Your task to perform on an android device: manage bookmarks in the chrome app Image 0: 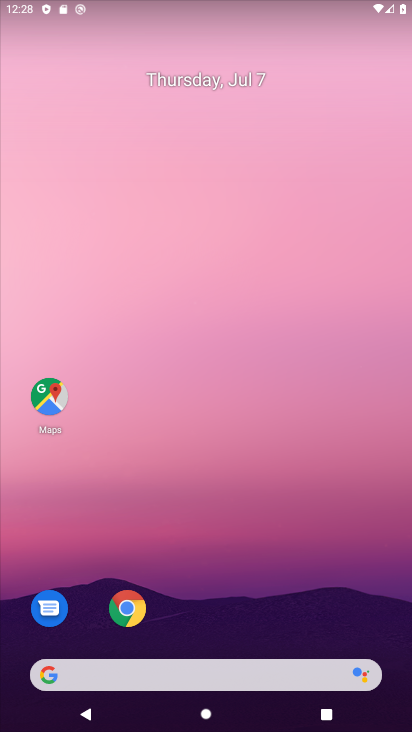
Step 0: click (121, 611)
Your task to perform on an android device: manage bookmarks in the chrome app Image 1: 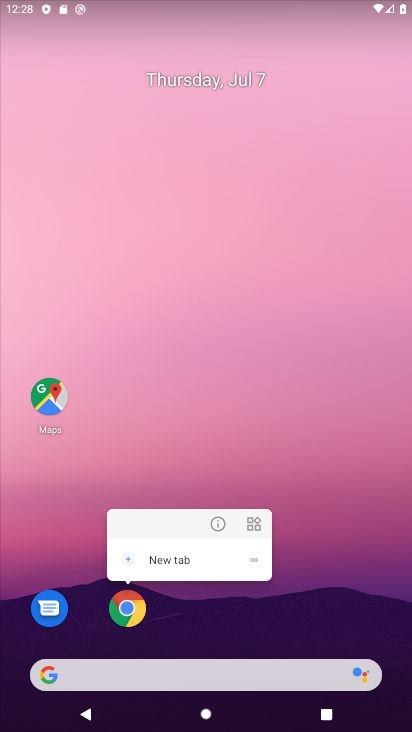
Step 1: click (129, 613)
Your task to perform on an android device: manage bookmarks in the chrome app Image 2: 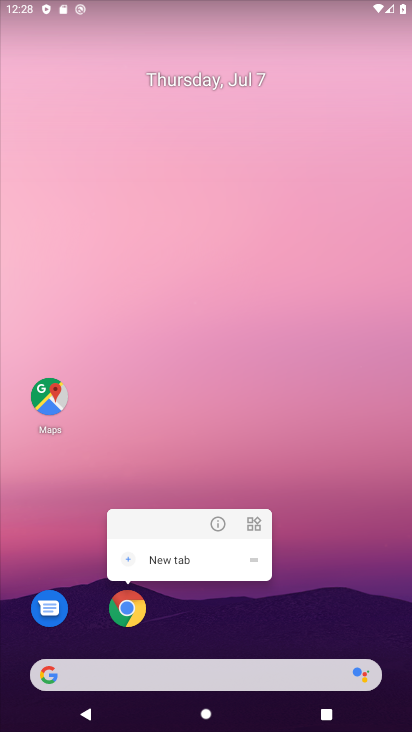
Step 2: click (129, 613)
Your task to perform on an android device: manage bookmarks in the chrome app Image 3: 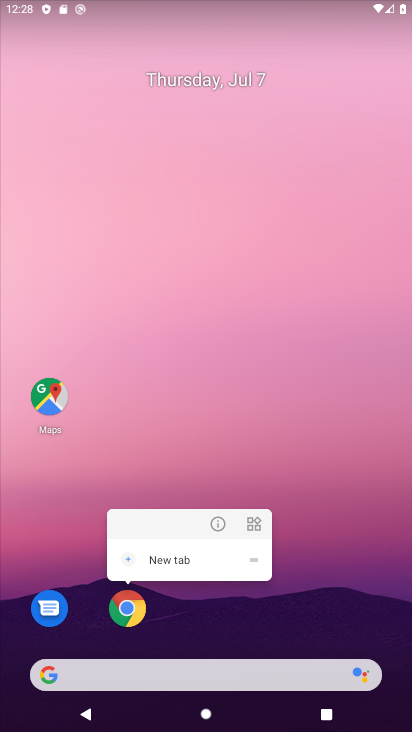
Step 3: click (124, 612)
Your task to perform on an android device: manage bookmarks in the chrome app Image 4: 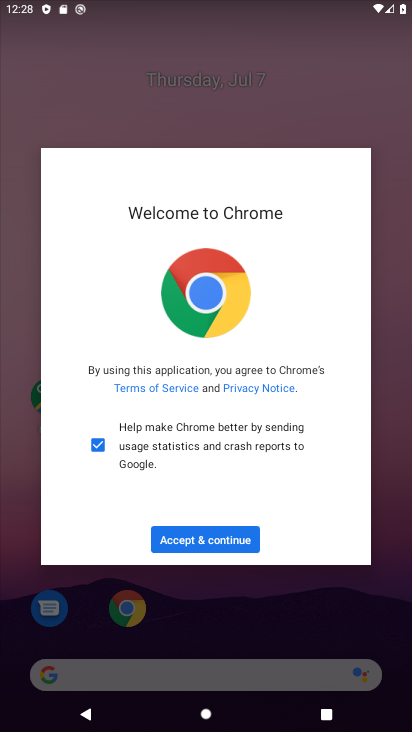
Step 4: click (203, 541)
Your task to perform on an android device: manage bookmarks in the chrome app Image 5: 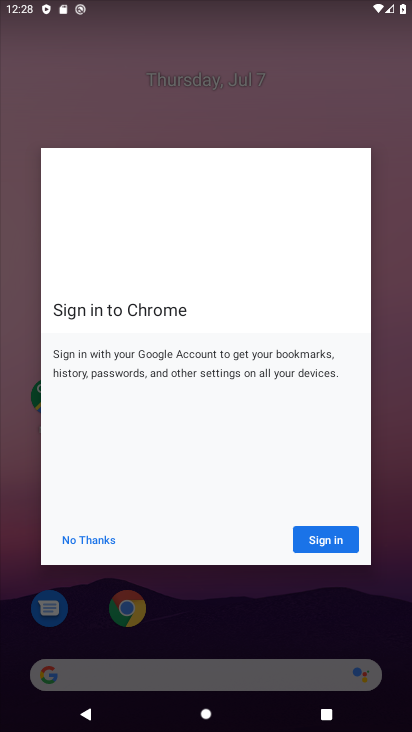
Step 5: click (349, 535)
Your task to perform on an android device: manage bookmarks in the chrome app Image 6: 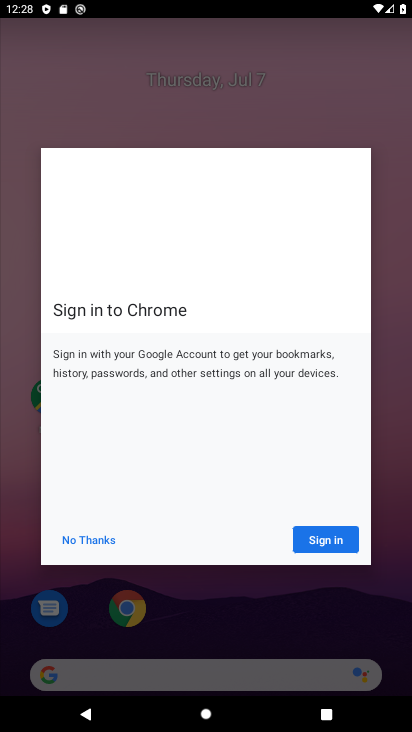
Step 6: click (333, 542)
Your task to perform on an android device: manage bookmarks in the chrome app Image 7: 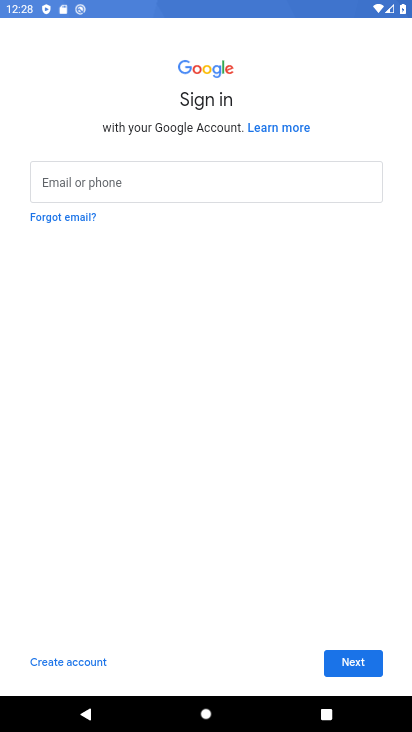
Step 7: task complete